Your task to perform on an android device: Show me recent news Image 0: 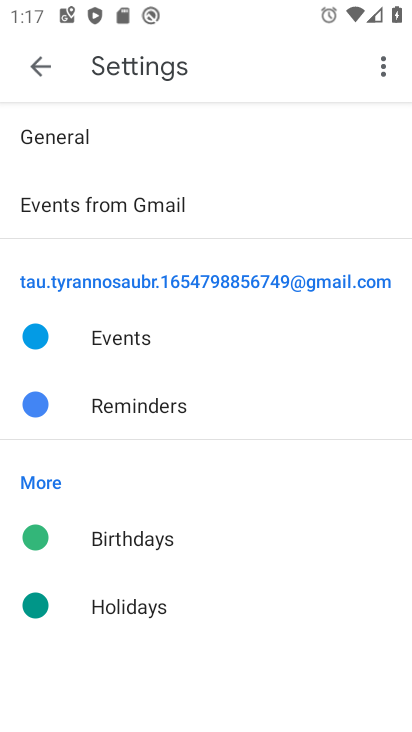
Step 0: press home button
Your task to perform on an android device: Show me recent news Image 1: 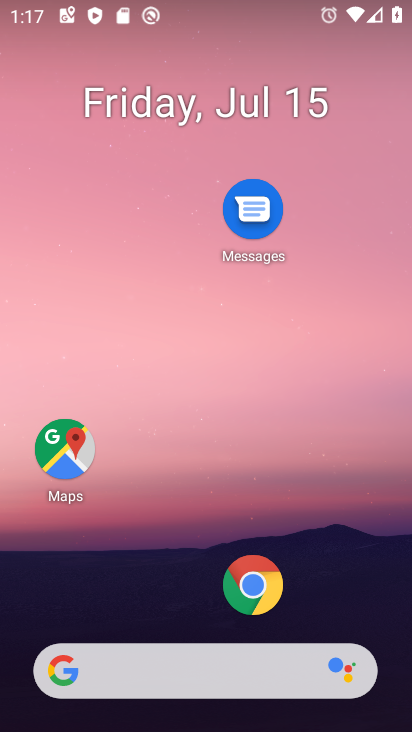
Step 1: click (157, 670)
Your task to perform on an android device: Show me recent news Image 2: 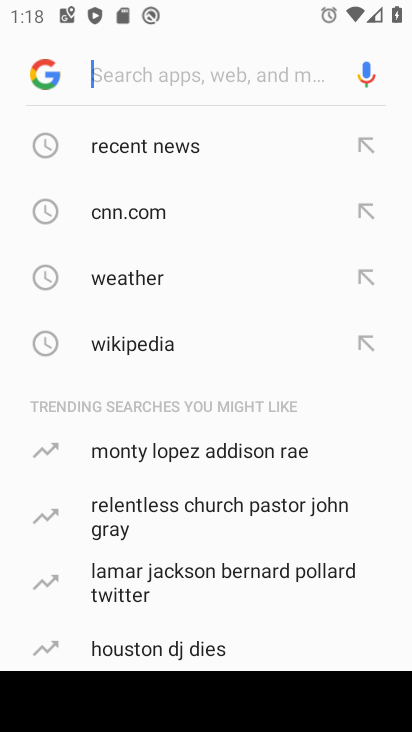
Step 2: click (153, 148)
Your task to perform on an android device: Show me recent news Image 3: 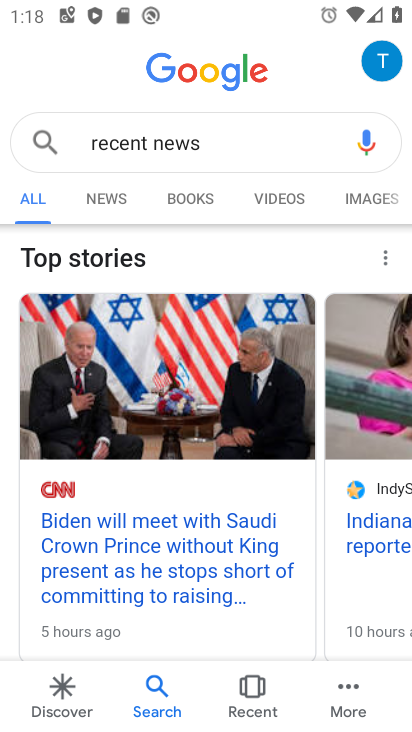
Step 3: click (115, 193)
Your task to perform on an android device: Show me recent news Image 4: 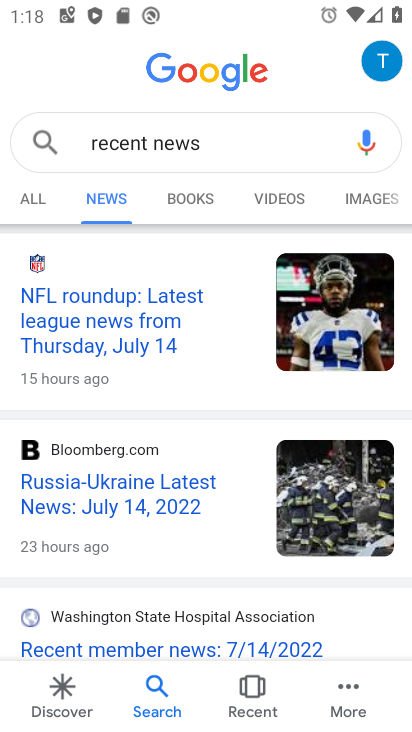
Step 4: task complete